Your task to perform on an android device: Do I have any events today? Image 0: 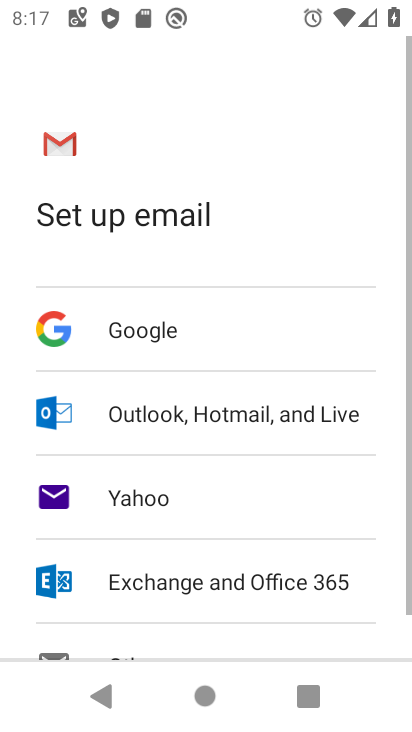
Step 0: press back button
Your task to perform on an android device: Do I have any events today? Image 1: 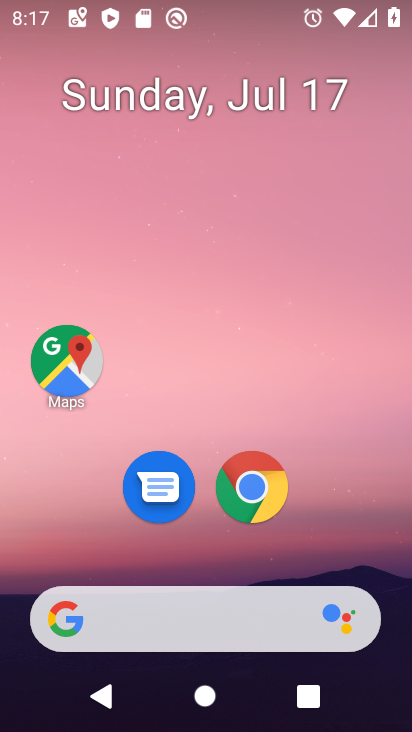
Step 1: drag from (117, 533) to (185, 31)
Your task to perform on an android device: Do I have any events today? Image 2: 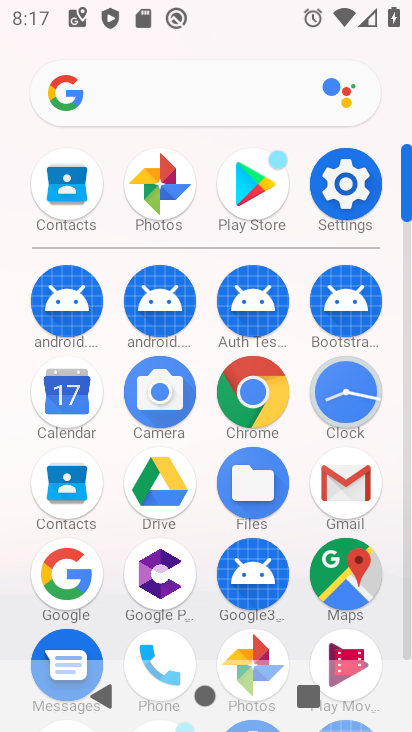
Step 2: click (55, 405)
Your task to perform on an android device: Do I have any events today? Image 3: 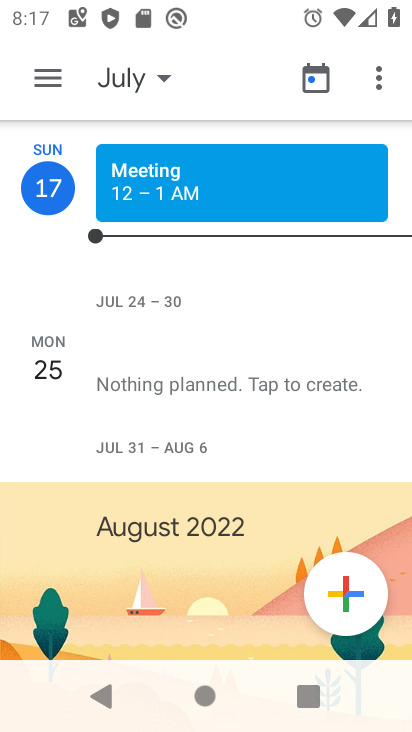
Step 3: task complete